Your task to perform on an android device: Go to ESPN.com Image 0: 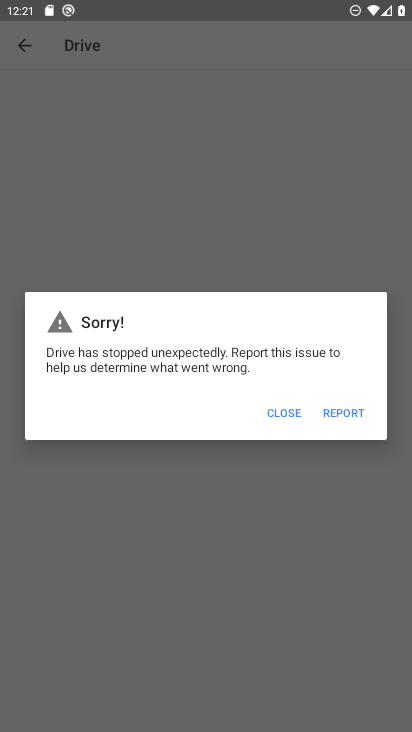
Step 0: press home button
Your task to perform on an android device: Go to ESPN.com Image 1: 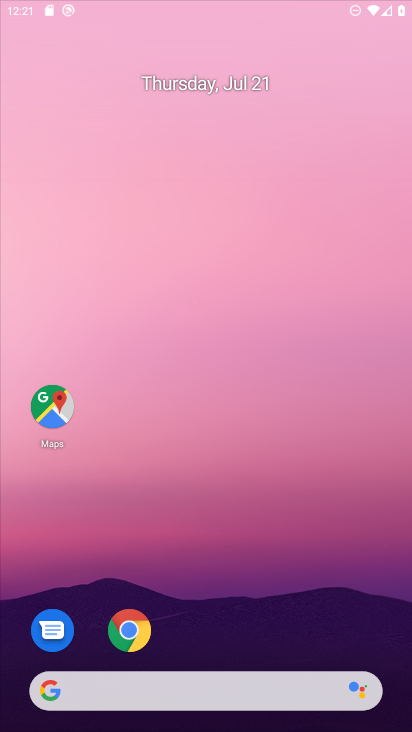
Step 1: drag from (165, 664) to (203, 58)
Your task to perform on an android device: Go to ESPN.com Image 2: 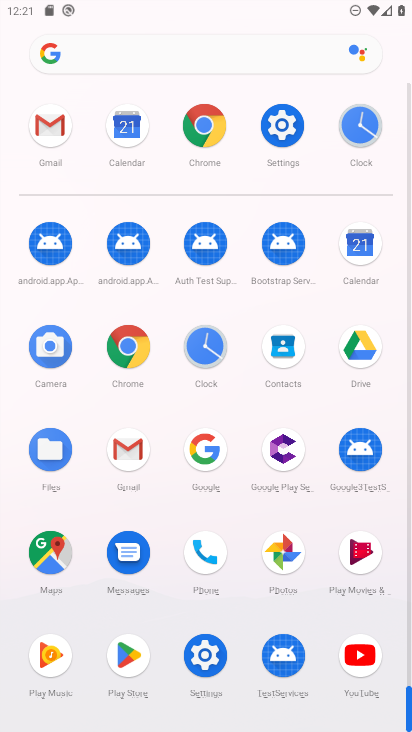
Step 2: click (122, 345)
Your task to perform on an android device: Go to ESPN.com Image 3: 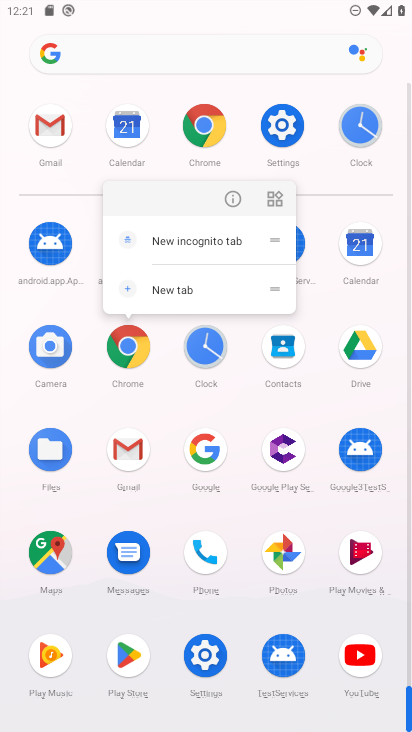
Step 3: click (226, 203)
Your task to perform on an android device: Go to ESPN.com Image 4: 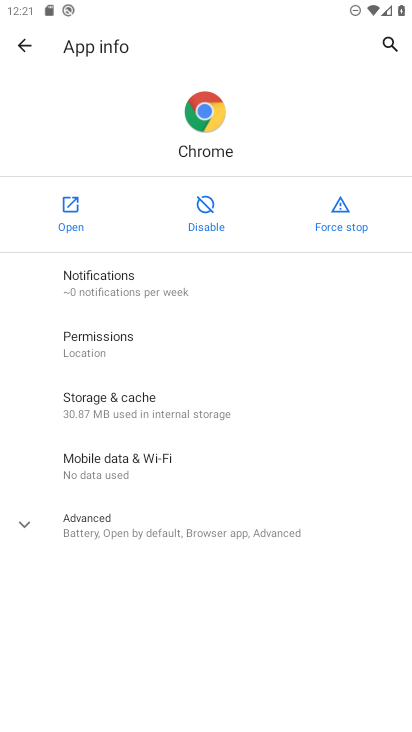
Step 4: click (55, 214)
Your task to perform on an android device: Go to ESPN.com Image 5: 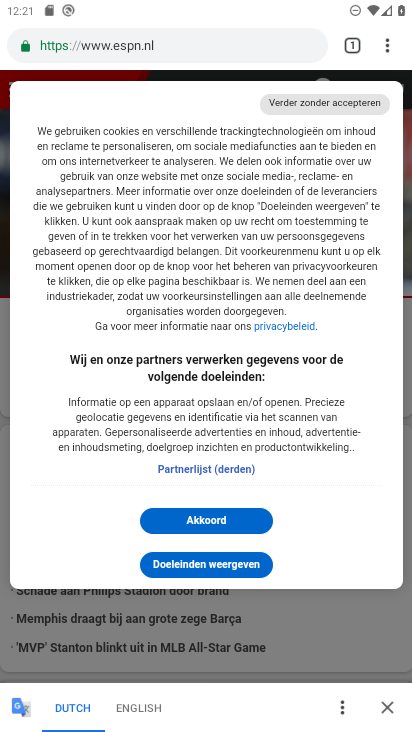
Step 5: task complete